Your task to perform on an android device: Show me recent news Image 0: 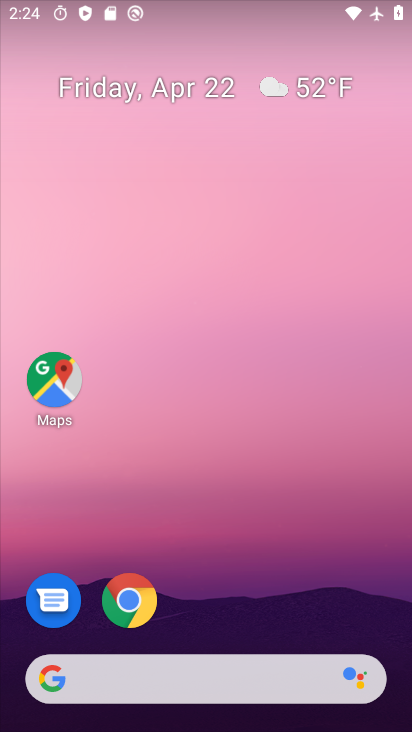
Step 0: drag from (2, 274) to (399, 254)
Your task to perform on an android device: Show me recent news Image 1: 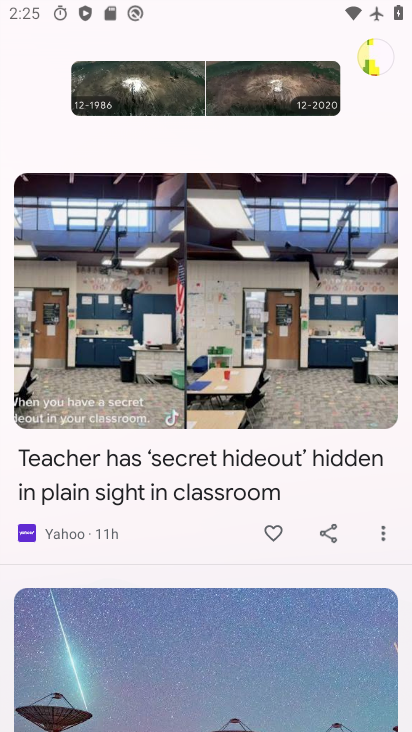
Step 1: task complete